Your task to perform on an android device: turn off airplane mode Image 0: 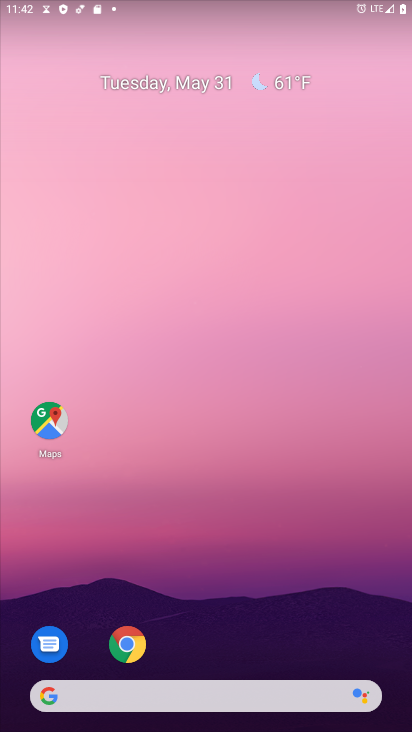
Step 0: drag from (361, 8) to (252, 594)
Your task to perform on an android device: turn off airplane mode Image 1: 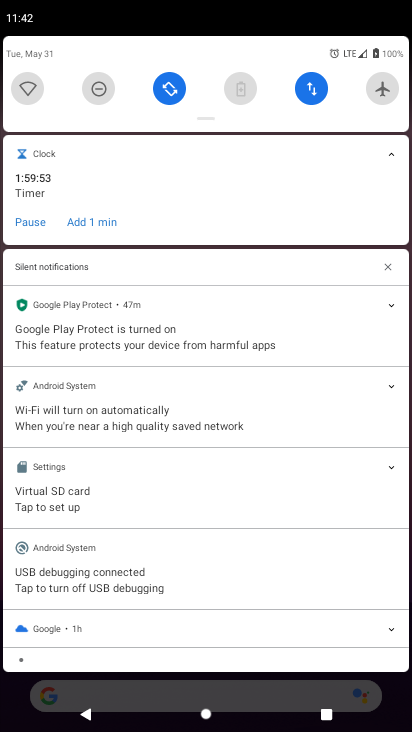
Step 1: task complete